Your task to perform on an android device: Open the phone app and click the voicemail tab. Image 0: 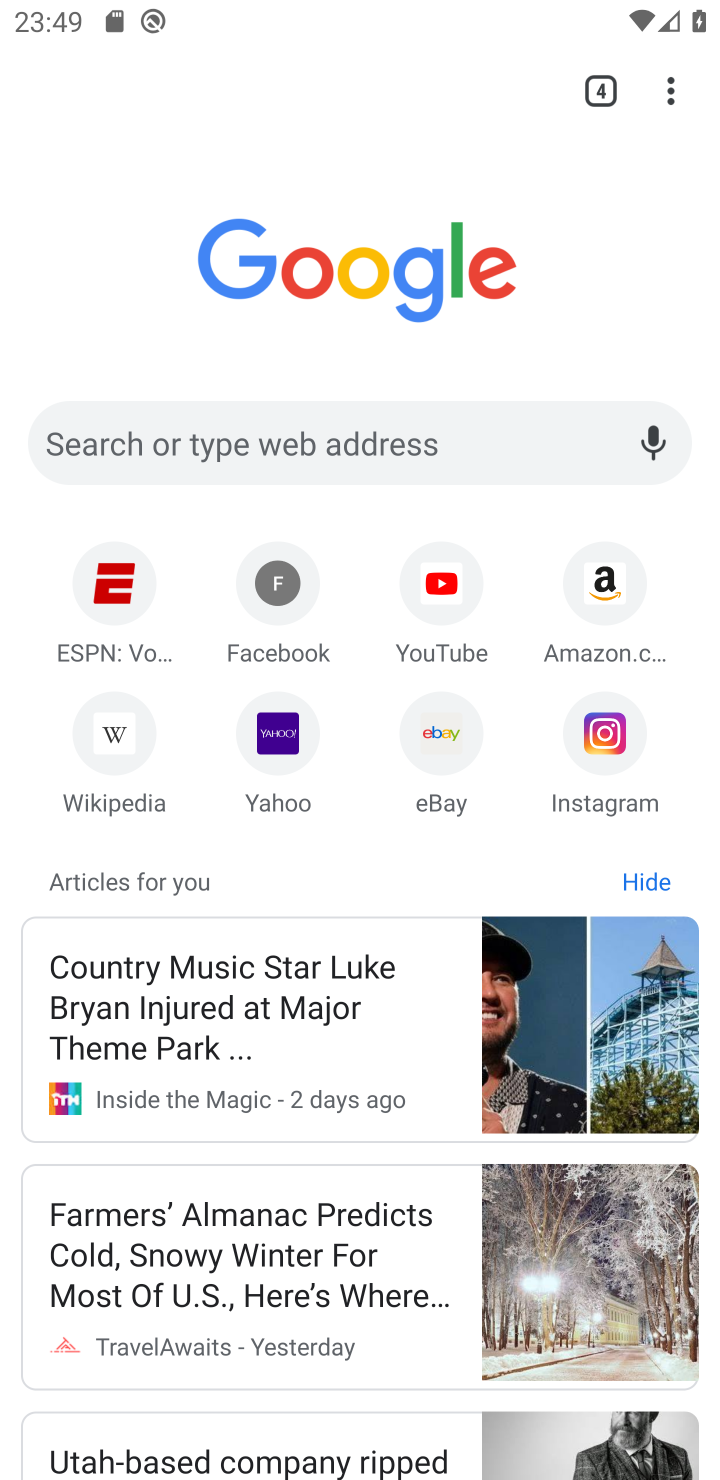
Step 0: press home button
Your task to perform on an android device: Open the phone app and click the voicemail tab. Image 1: 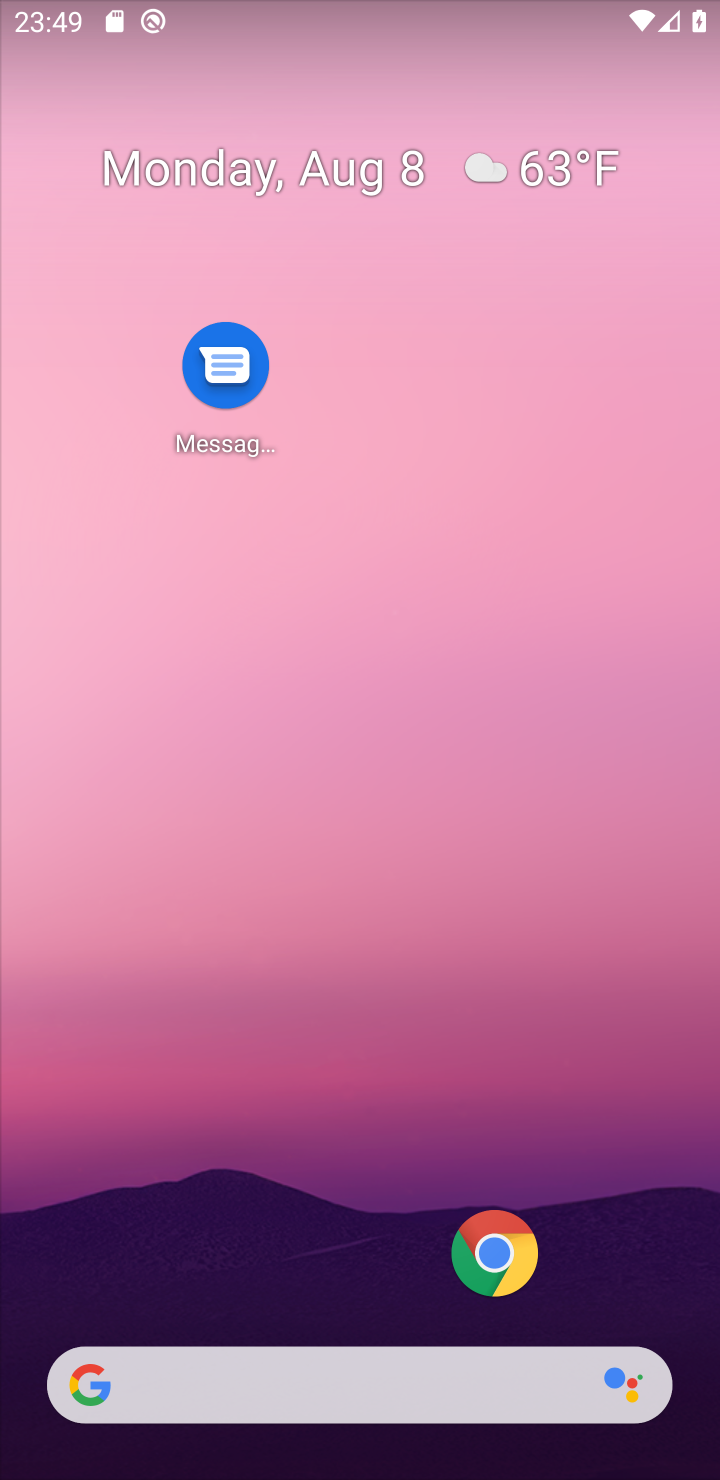
Step 1: drag from (299, 1344) to (420, 417)
Your task to perform on an android device: Open the phone app and click the voicemail tab. Image 2: 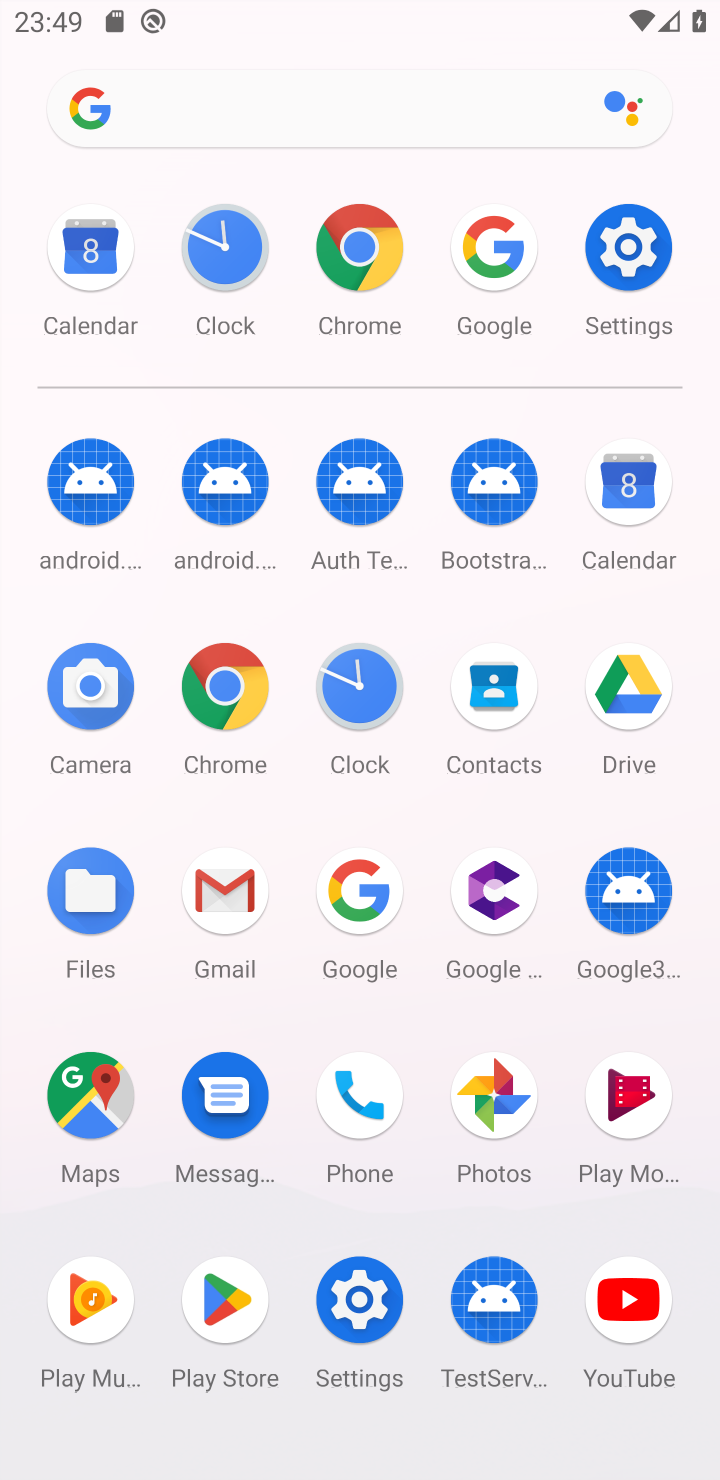
Step 2: click (351, 1089)
Your task to perform on an android device: Open the phone app and click the voicemail tab. Image 3: 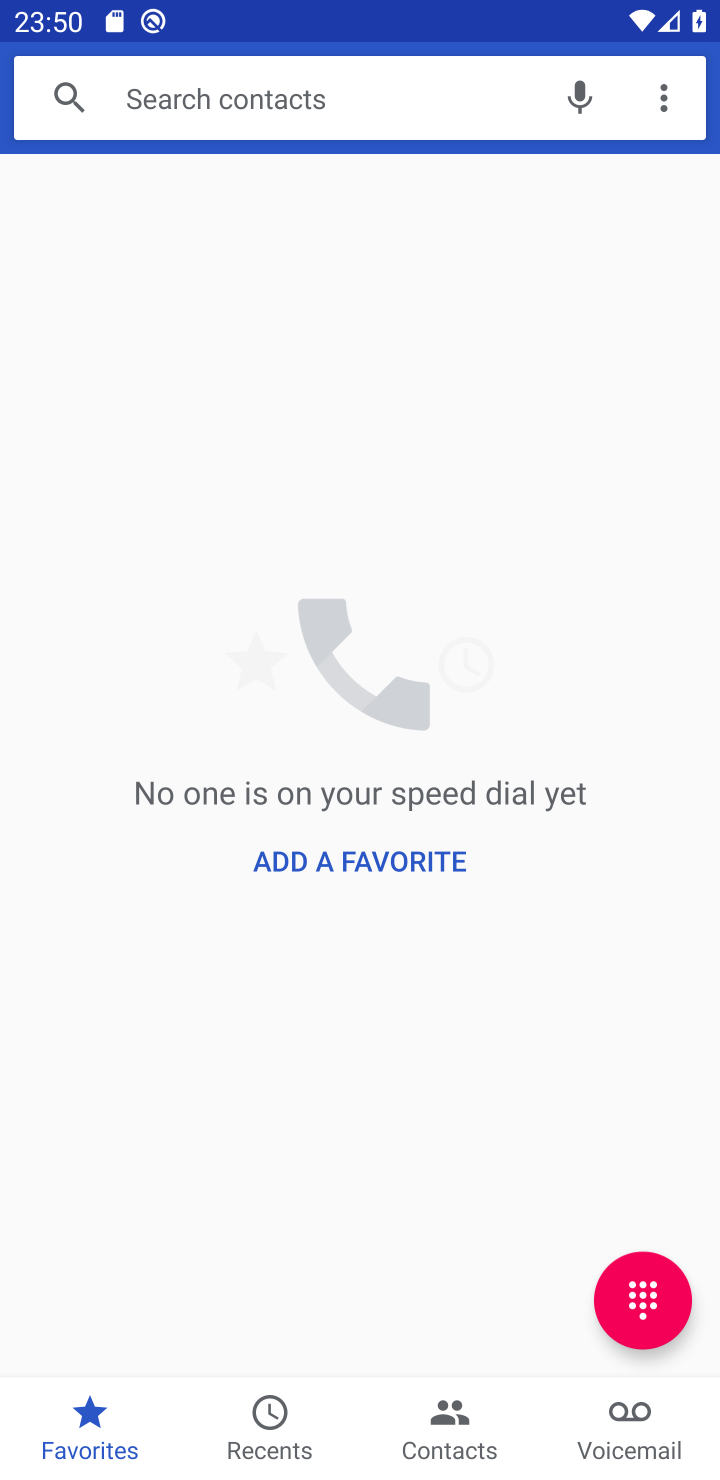
Step 3: click (614, 1430)
Your task to perform on an android device: Open the phone app and click the voicemail tab. Image 4: 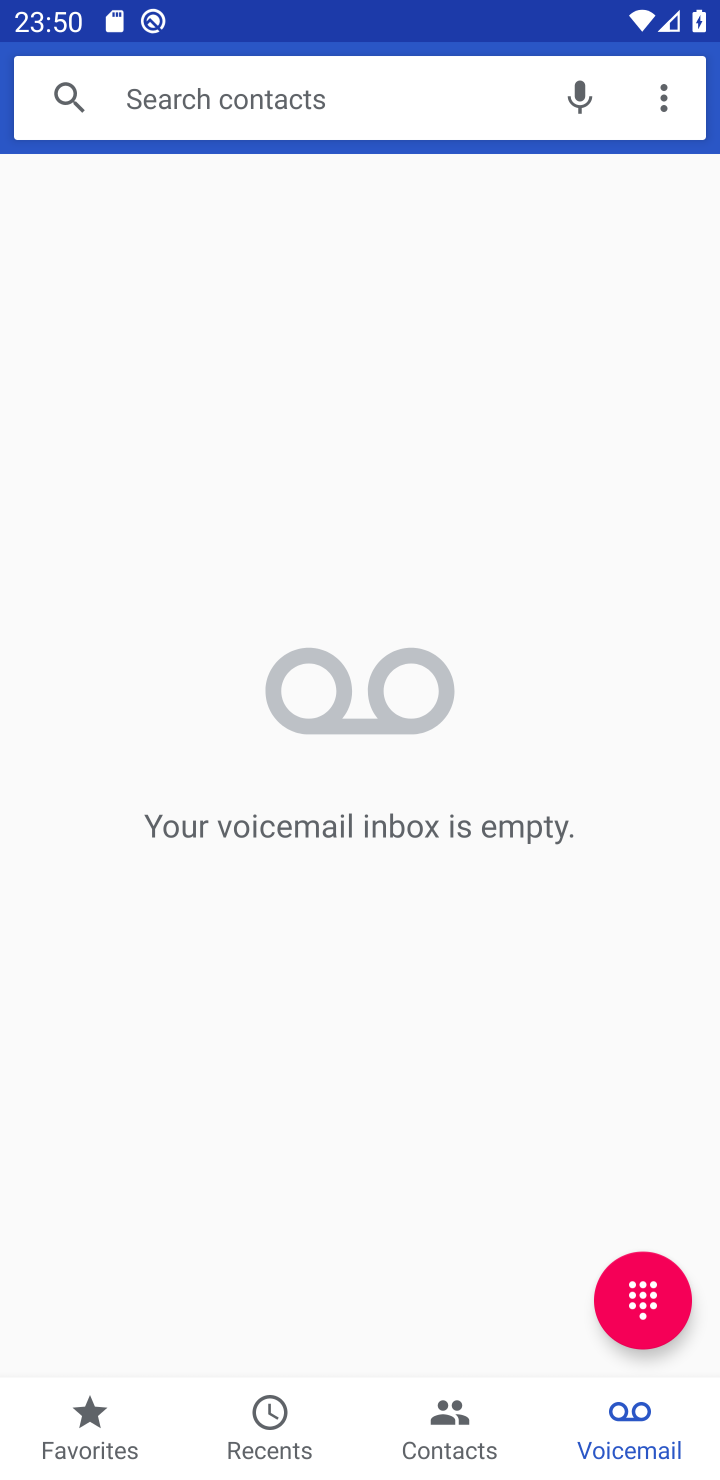
Step 4: task complete